Your task to perform on an android device: Open settings on Google Maps Image 0: 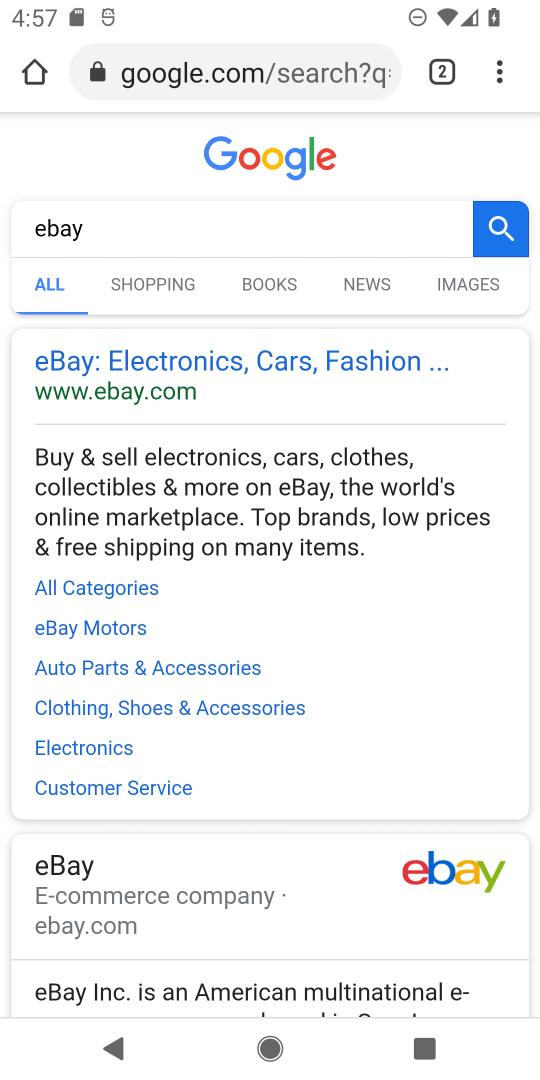
Step 0: press home button
Your task to perform on an android device: Open settings on Google Maps Image 1: 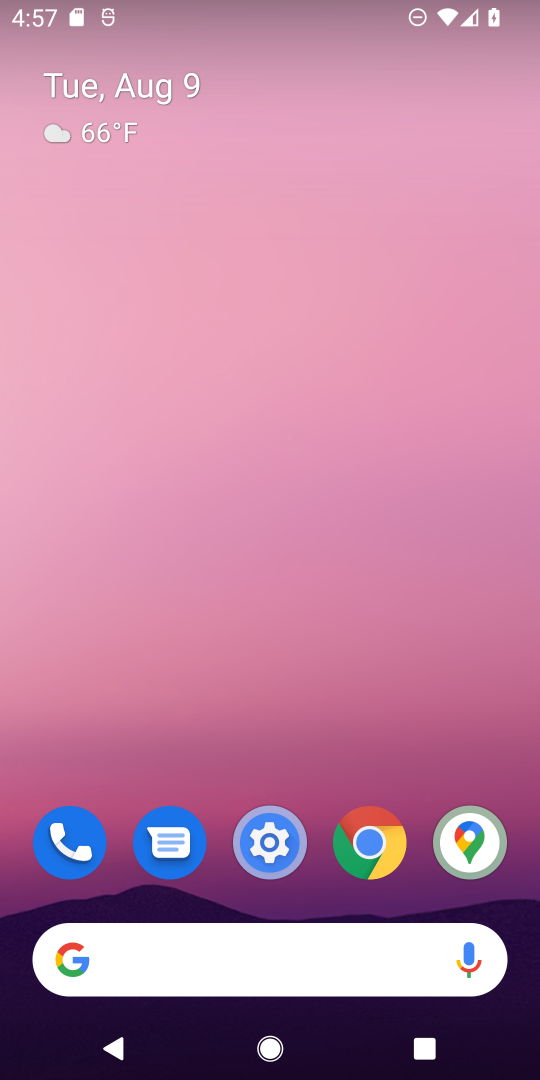
Step 1: drag from (372, 935) to (456, 153)
Your task to perform on an android device: Open settings on Google Maps Image 2: 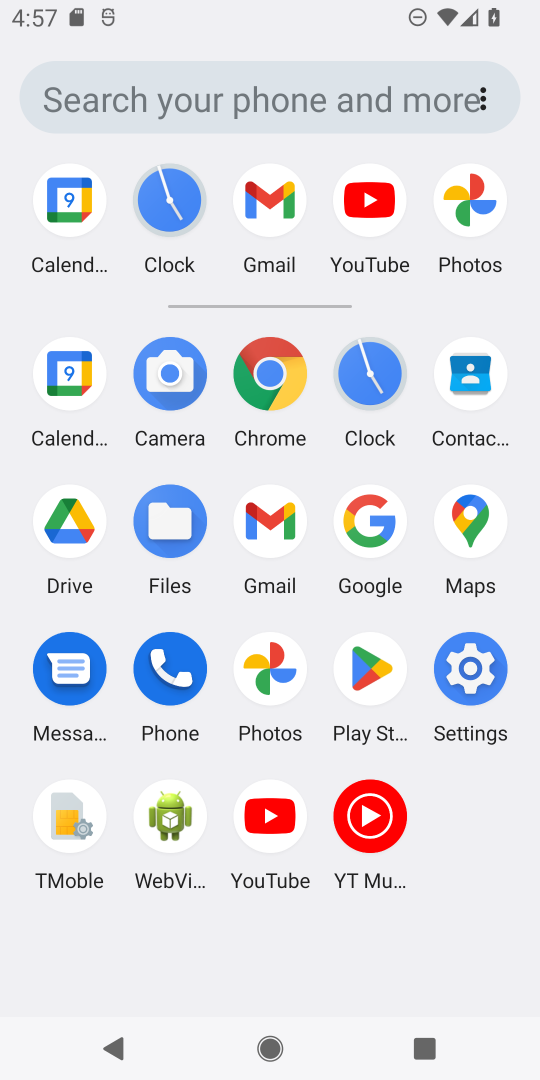
Step 2: click (466, 504)
Your task to perform on an android device: Open settings on Google Maps Image 3: 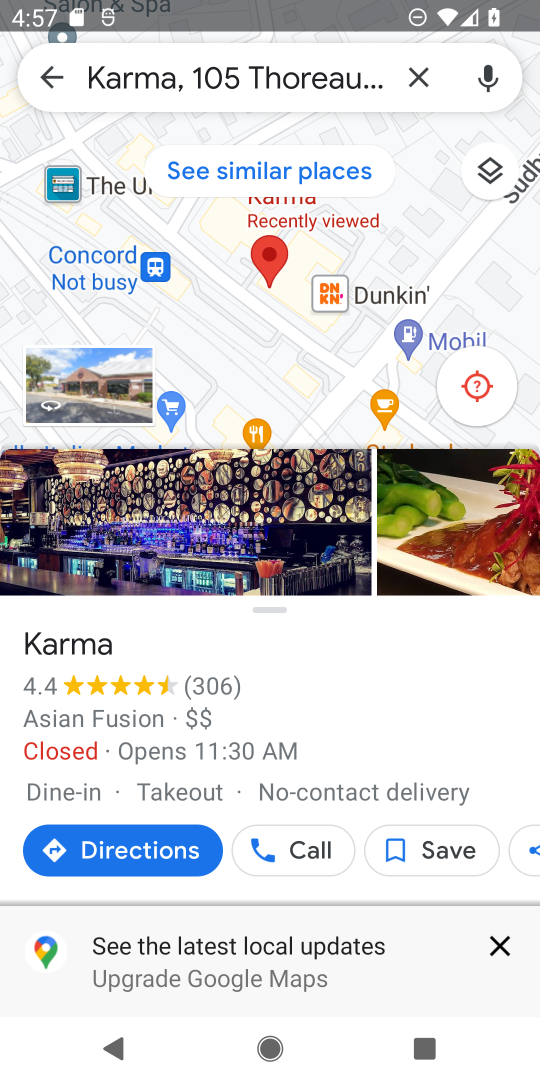
Step 3: press back button
Your task to perform on an android device: Open settings on Google Maps Image 4: 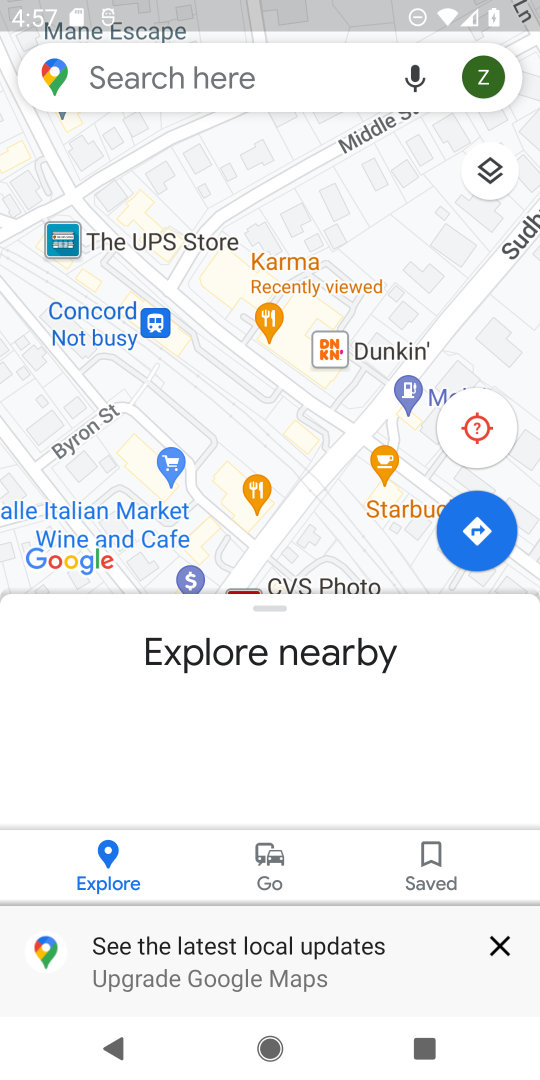
Step 4: click (491, 71)
Your task to perform on an android device: Open settings on Google Maps Image 5: 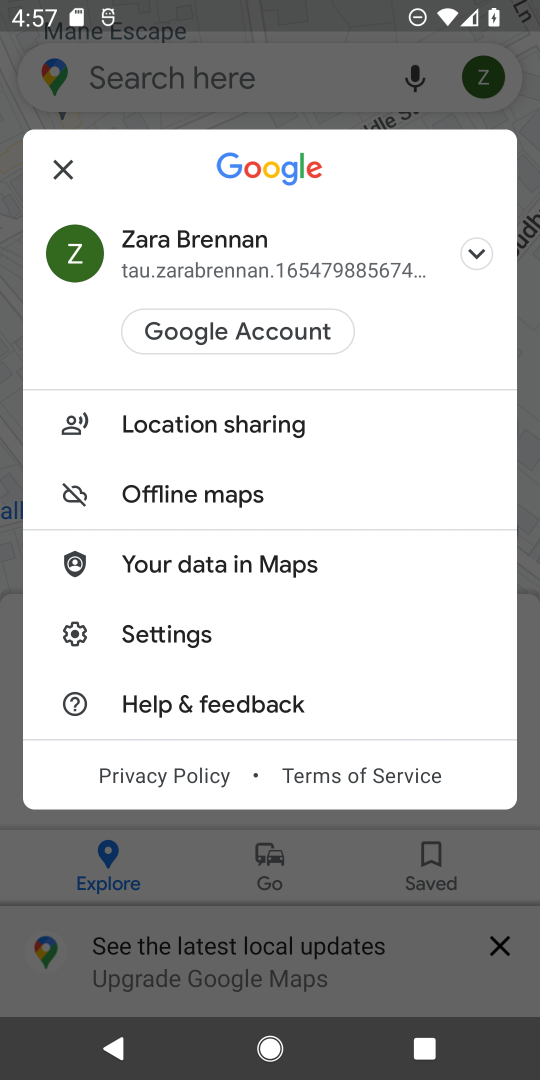
Step 5: click (193, 634)
Your task to perform on an android device: Open settings on Google Maps Image 6: 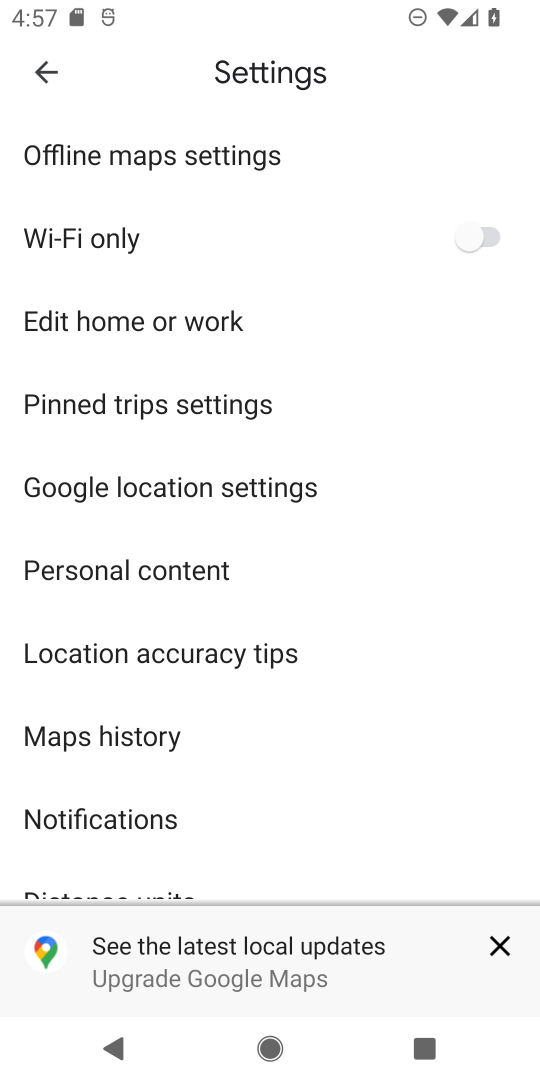
Step 6: task complete